Your task to perform on an android device: move a message to another label in the gmail app Image 0: 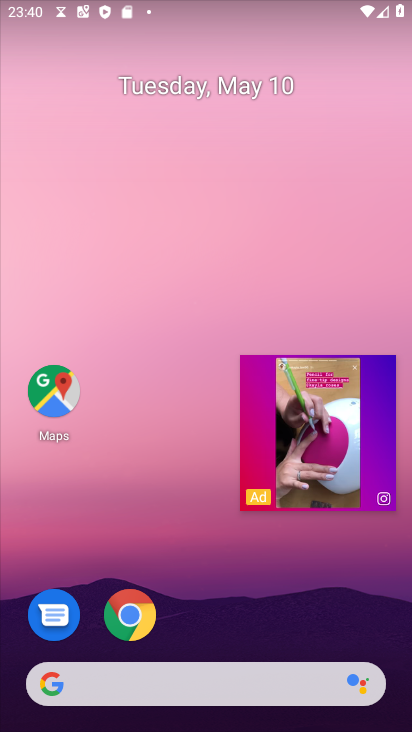
Step 0: click (276, 363)
Your task to perform on an android device: move a message to another label in the gmail app Image 1: 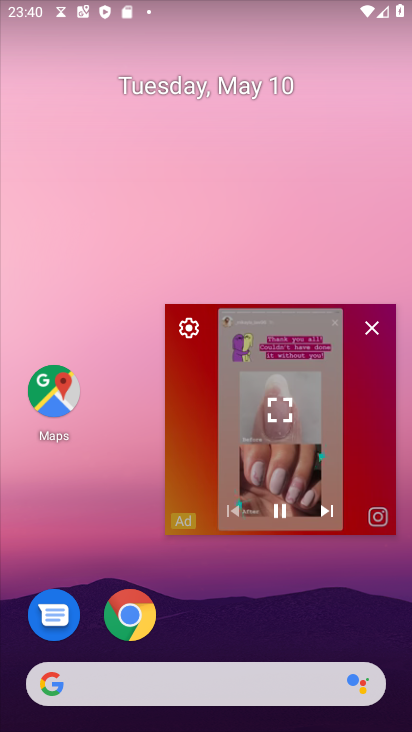
Step 1: click (375, 327)
Your task to perform on an android device: move a message to another label in the gmail app Image 2: 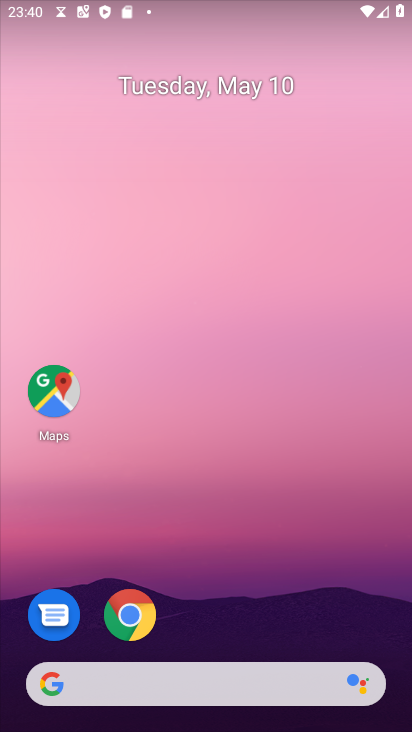
Step 2: drag from (212, 608) to (206, 69)
Your task to perform on an android device: move a message to another label in the gmail app Image 3: 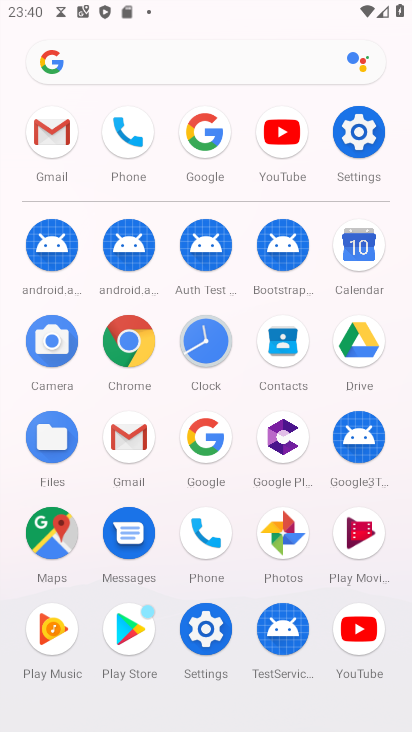
Step 3: click (53, 135)
Your task to perform on an android device: move a message to another label in the gmail app Image 4: 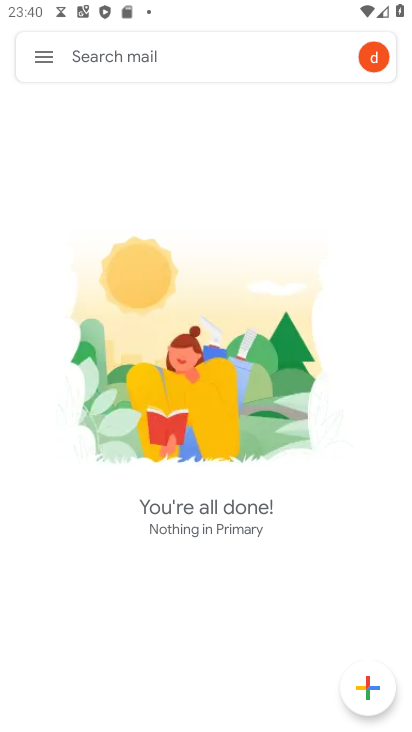
Step 4: click (45, 58)
Your task to perform on an android device: move a message to another label in the gmail app Image 5: 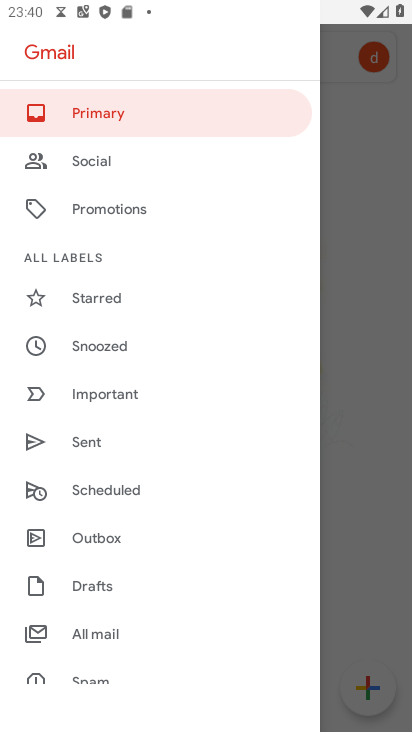
Step 5: click (94, 638)
Your task to perform on an android device: move a message to another label in the gmail app Image 6: 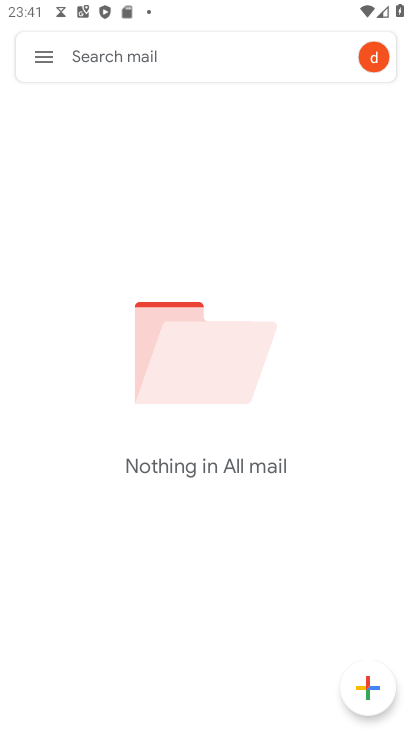
Step 6: task complete